Your task to perform on an android device: check battery use Image 0: 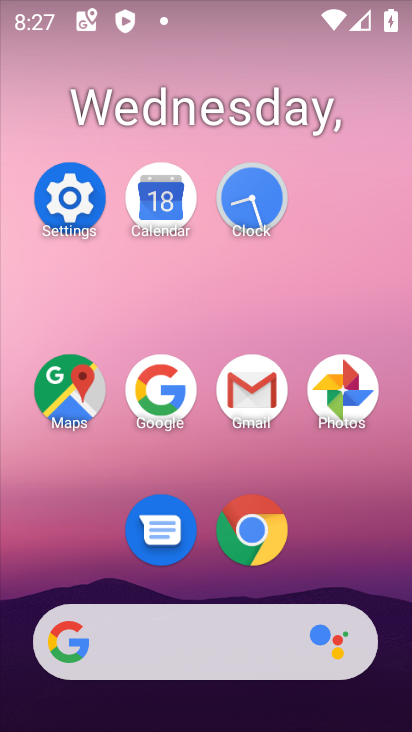
Step 0: click (51, 202)
Your task to perform on an android device: check battery use Image 1: 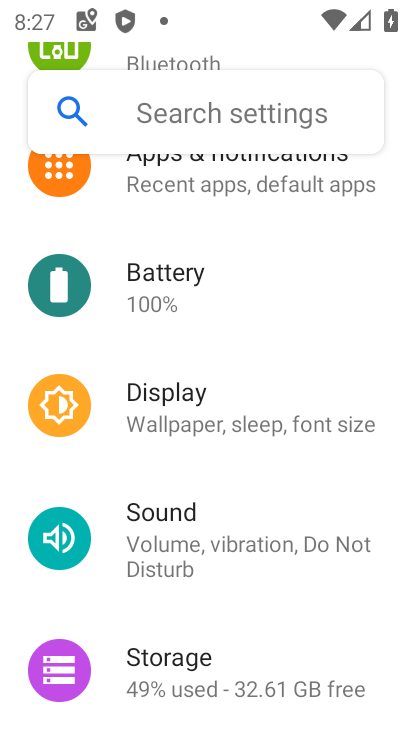
Step 1: drag from (277, 540) to (287, 495)
Your task to perform on an android device: check battery use Image 2: 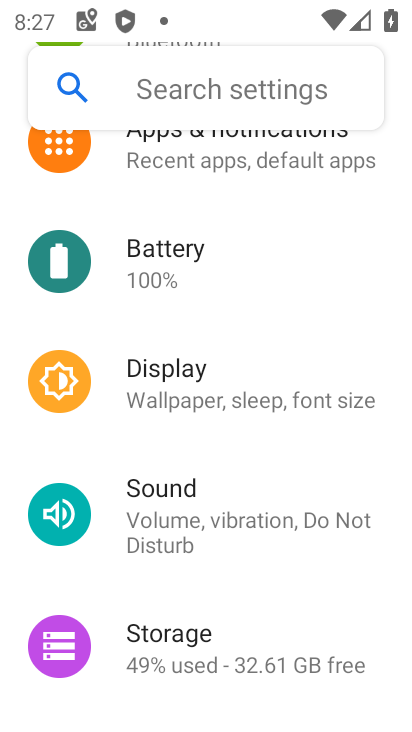
Step 2: click (229, 280)
Your task to perform on an android device: check battery use Image 3: 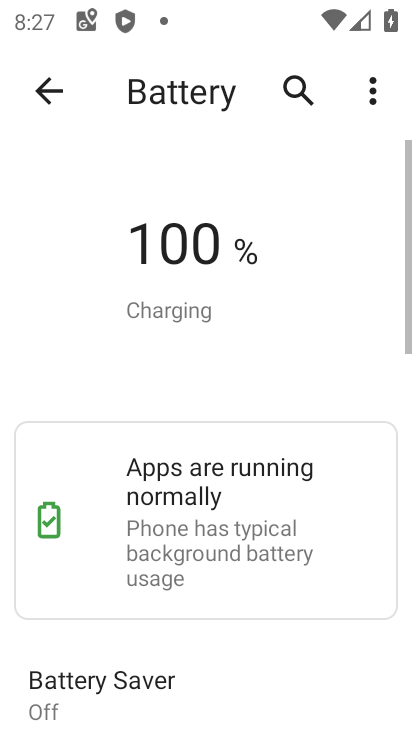
Step 3: click (393, 95)
Your task to perform on an android device: check battery use Image 4: 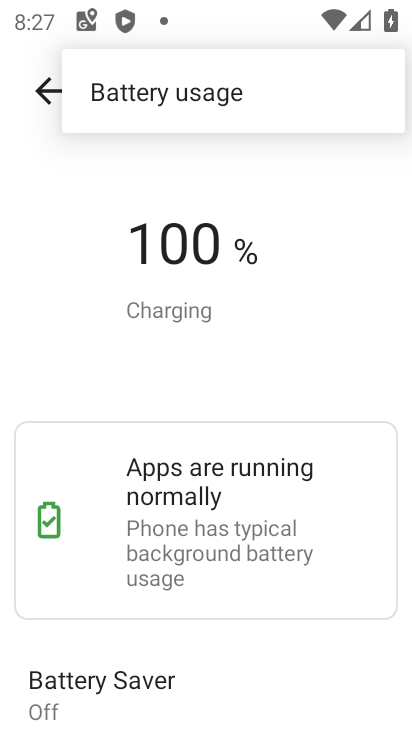
Step 4: click (277, 97)
Your task to perform on an android device: check battery use Image 5: 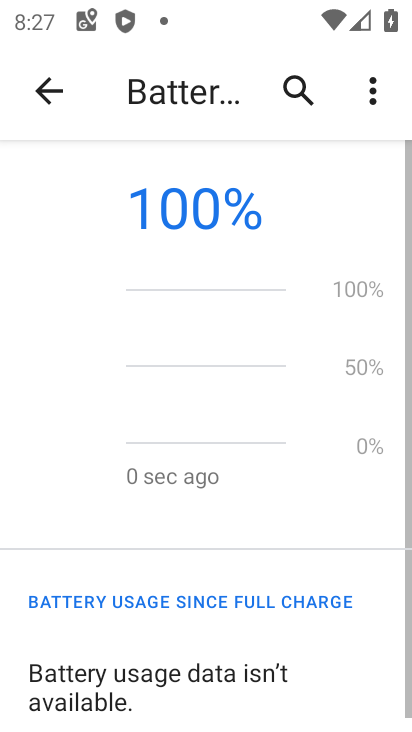
Step 5: task complete